Your task to perform on an android device: Turn off the flashlight Image 0: 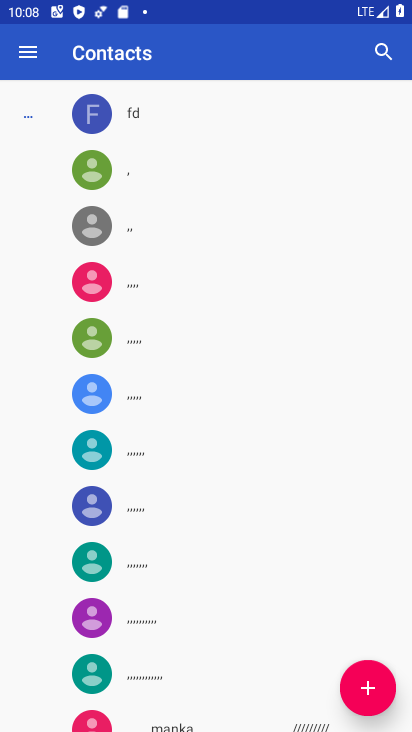
Step 0: press home button
Your task to perform on an android device: Turn off the flashlight Image 1: 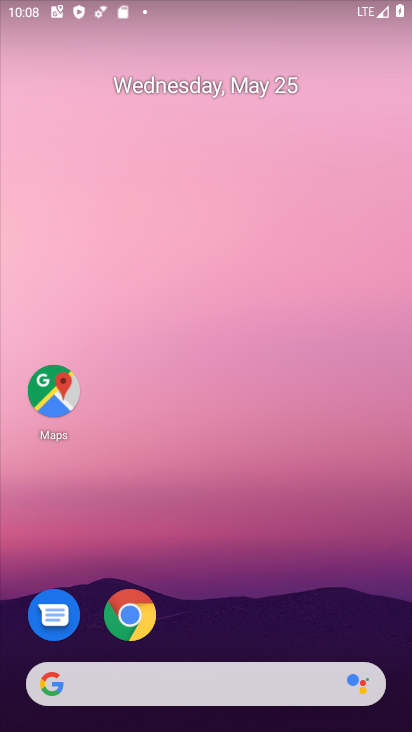
Step 1: drag from (319, 479) to (314, 33)
Your task to perform on an android device: Turn off the flashlight Image 2: 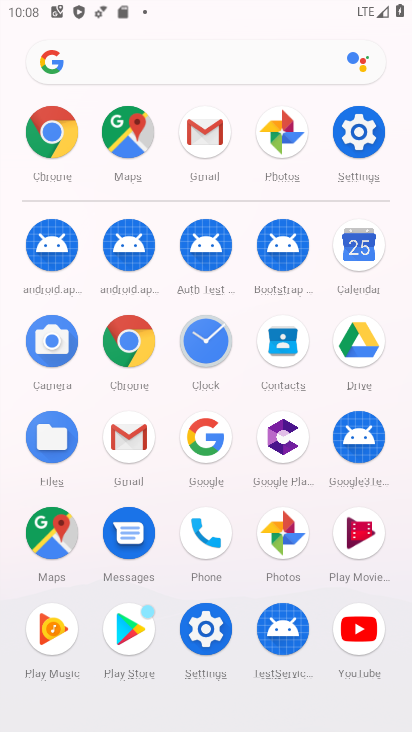
Step 2: click (343, 124)
Your task to perform on an android device: Turn off the flashlight Image 3: 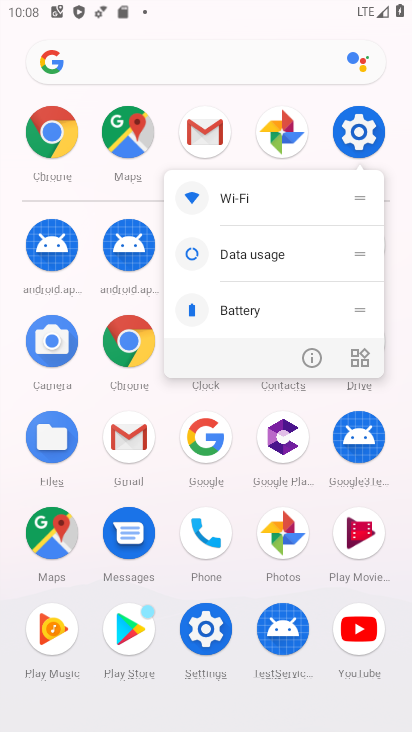
Step 3: click (356, 121)
Your task to perform on an android device: Turn off the flashlight Image 4: 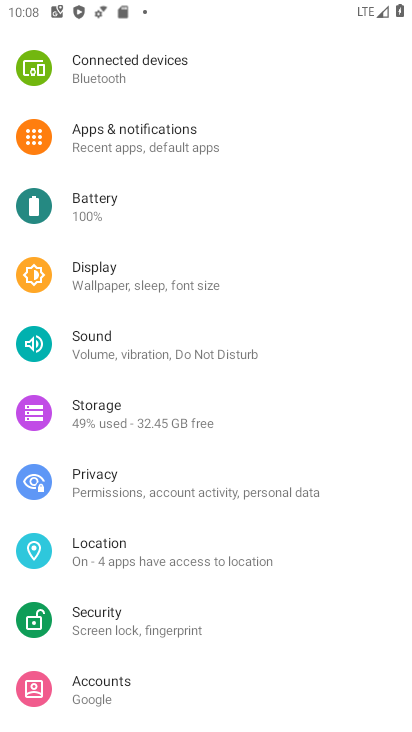
Step 4: drag from (233, 238) to (233, 707)
Your task to perform on an android device: Turn off the flashlight Image 5: 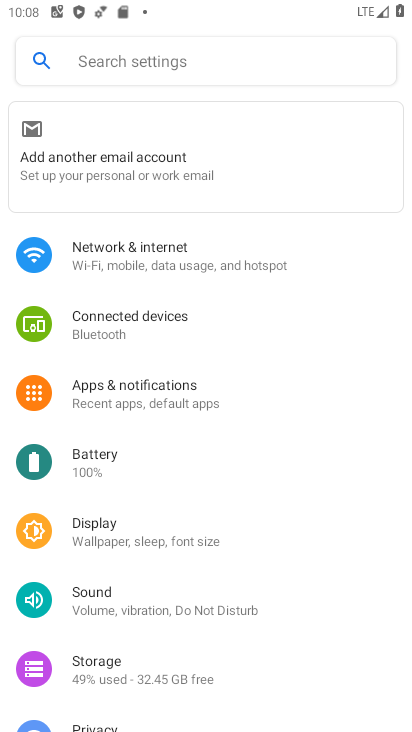
Step 5: click (238, 47)
Your task to perform on an android device: Turn off the flashlight Image 6: 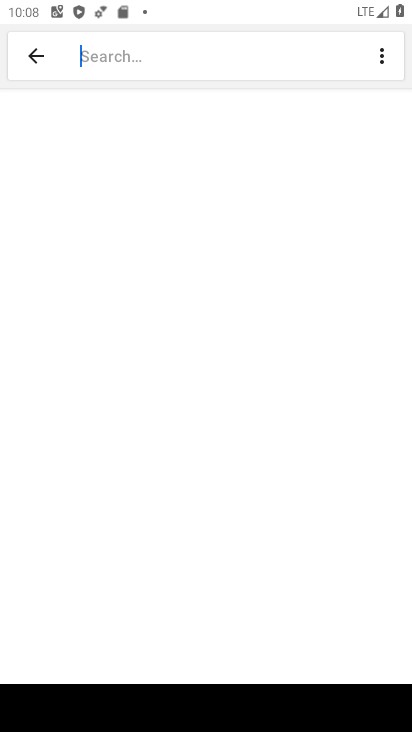
Step 6: click (245, 56)
Your task to perform on an android device: Turn off the flashlight Image 7: 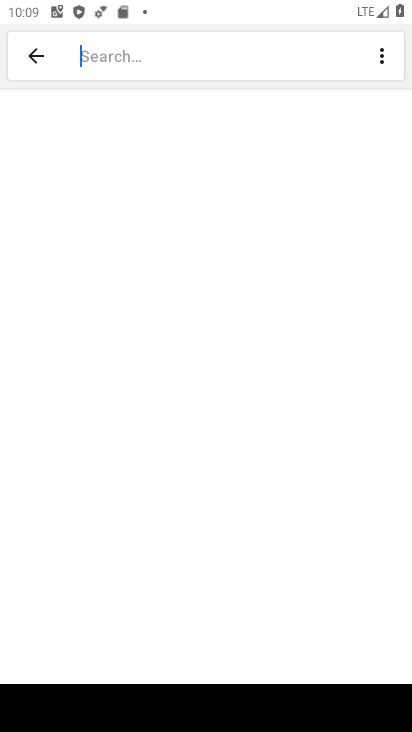
Step 7: type "Flashlight"
Your task to perform on an android device: Turn off the flashlight Image 8: 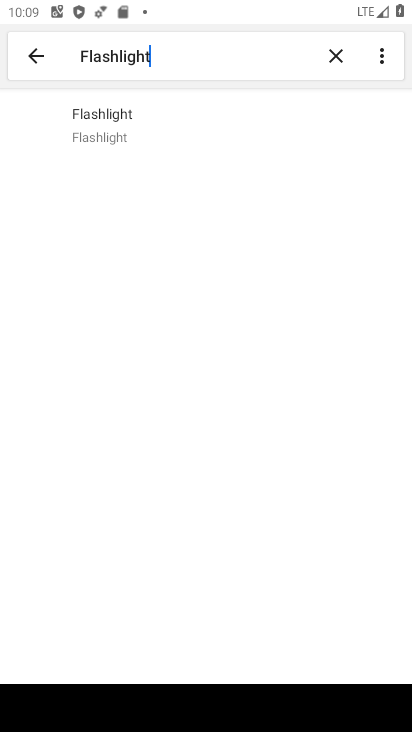
Step 8: click (131, 134)
Your task to perform on an android device: Turn off the flashlight Image 9: 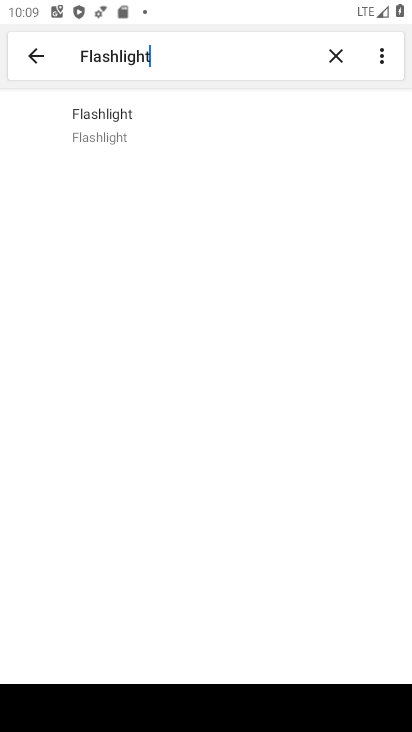
Step 9: click (115, 123)
Your task to perform on an android device: Turn off the flashlight Image 10: 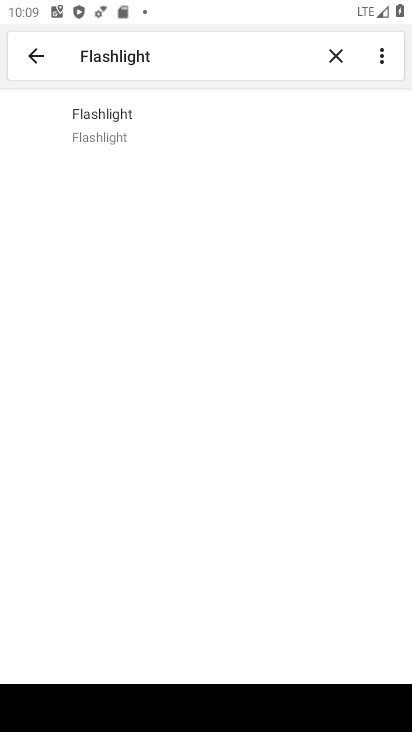
Step 10: task complete